Your task to perform on an android device: Go to accessibility settings Image 0: 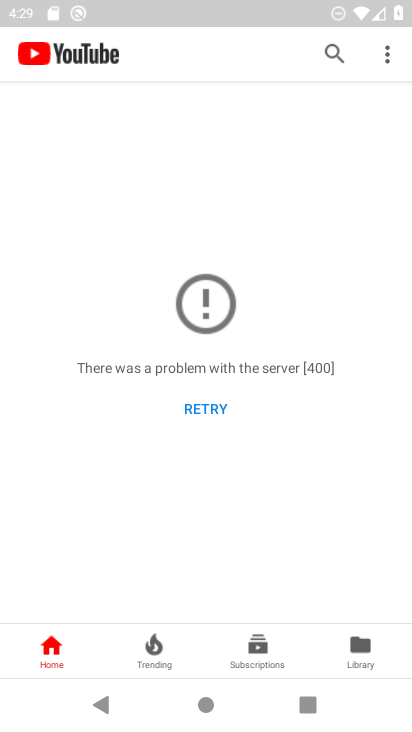
Step 0: press home button
Your task to perform on an android device: Go to accessibility settings Image 1: 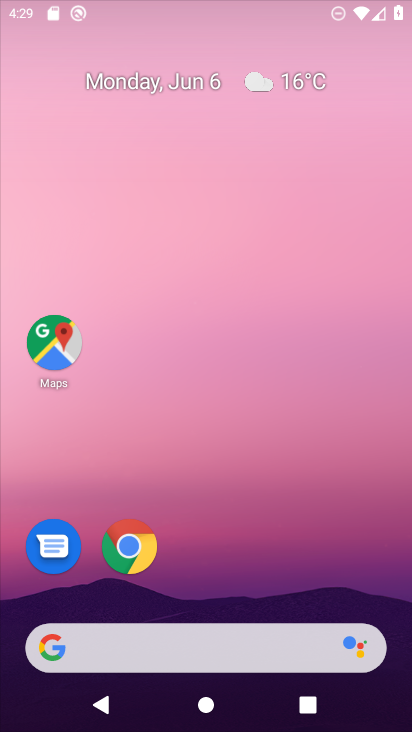
Step 1: drag from (221, 604) to (131, 78)
Your task to perform on an android device: Go to accessibility settings Image 2: 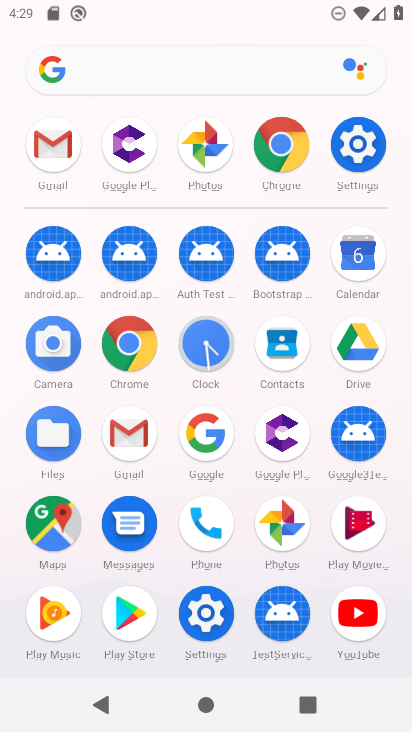
Step 2: click (345, 149)
Your task to perform on an android device: Go to accessibility settings Image 3: 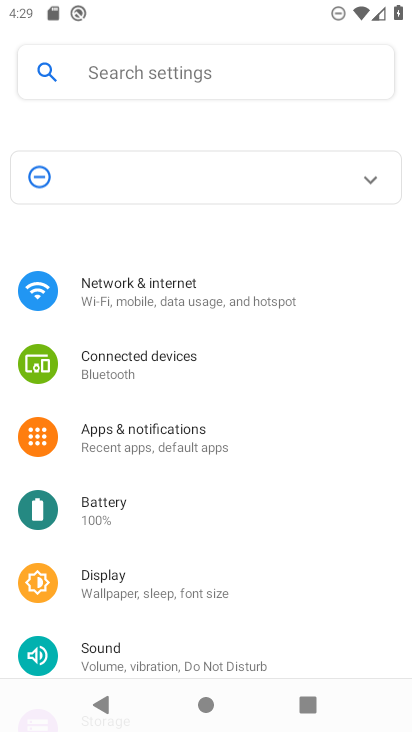
Step 3: drag from (268, 472) to (226, 114)
Your task to perform on an android device: Go to accessibility settings Image 4: 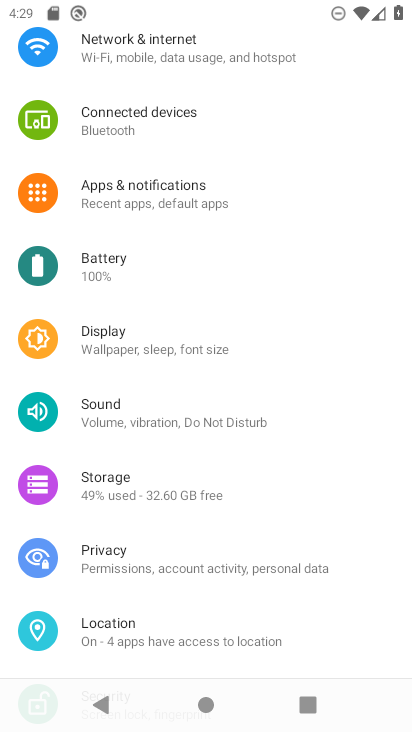
Step 4: drag from (223, 490) to (194, 119)
Your task to perform on an android device: Go to accessibility settings Image 5: 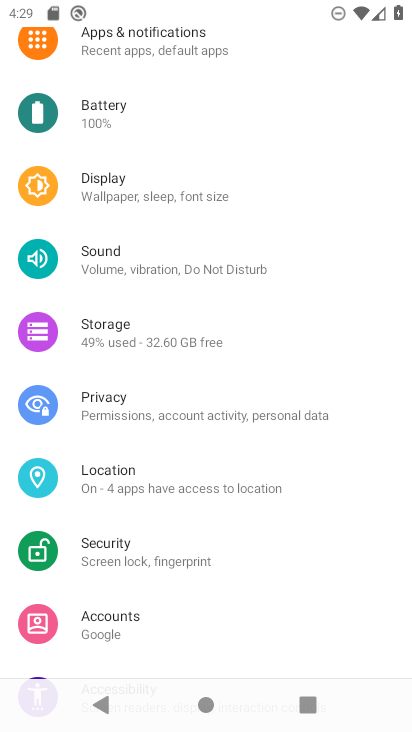
Step 5: drag from (183, 525) to (146, 134)
Your task to perform on an android device: Go to accessibility settings Image 6: 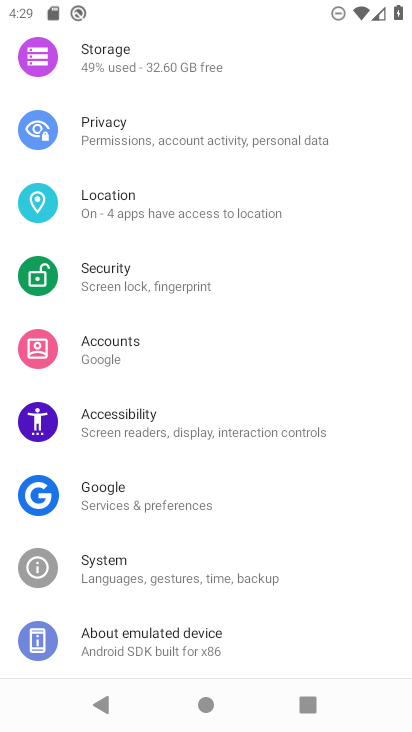
Step 6: click (85, 403)
Your task to perform on an android device: Go to accessibility settings Image 7: 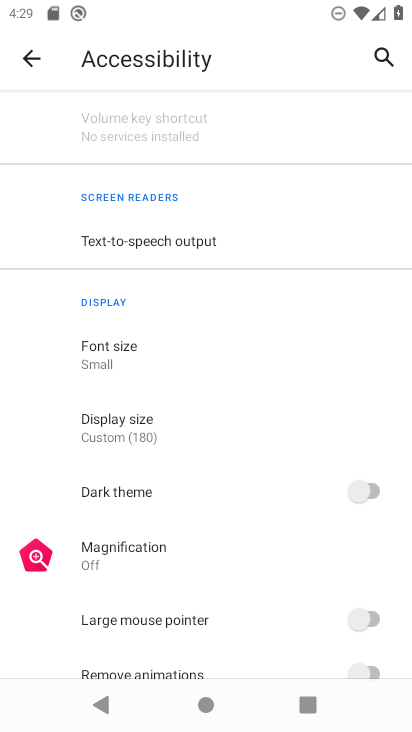
Step 7: task complete